Your task to perform on an android device: turn on wifi Image 0: 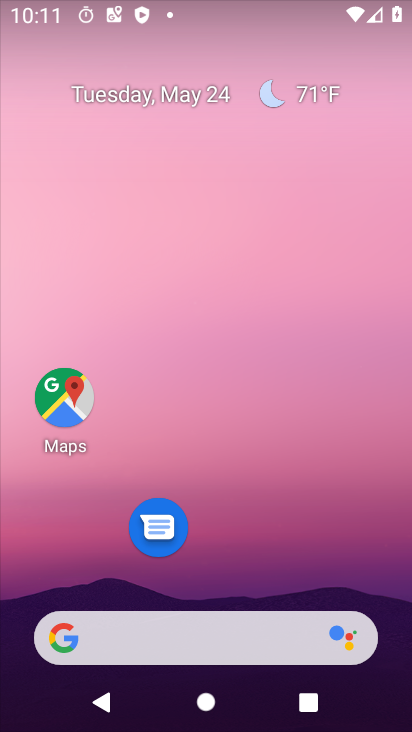
Step 0: drag from (270, 550) to (329, 37)
Your task to perform on an android device: turn on wifi Image 1: 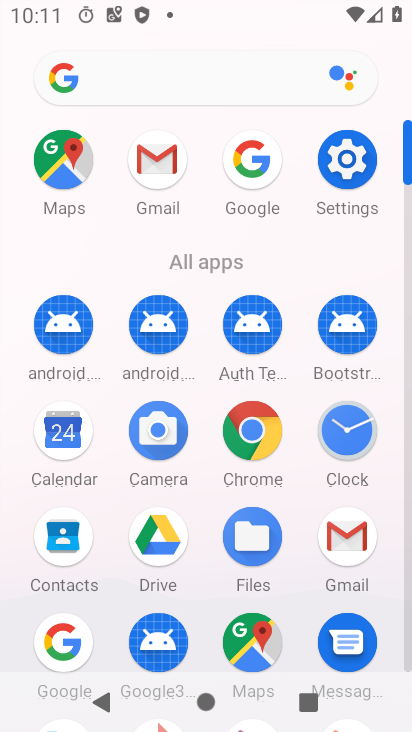
Step 1: click (344, 155)
Your task to perform on an android device: turn on wifi Image 2: 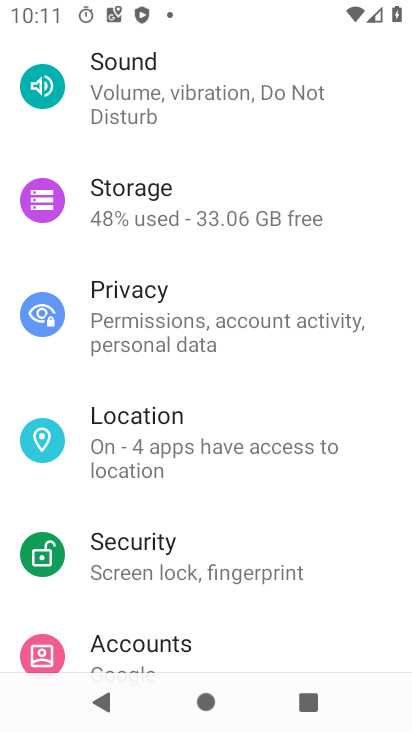
Step 2: drag from (227, 122) to (268, 622)
Your task to perform on an android device: turn on wifi Image 3: 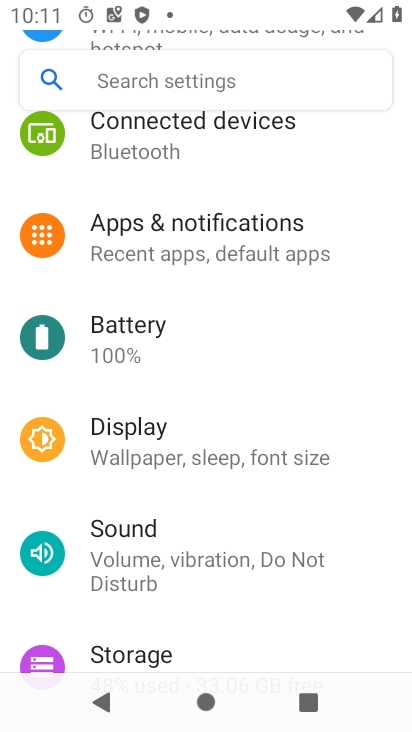
Step 3: drag from (154, 174) to (223, 632)
Your task to perform on an android device: turn on wifi Image 4: 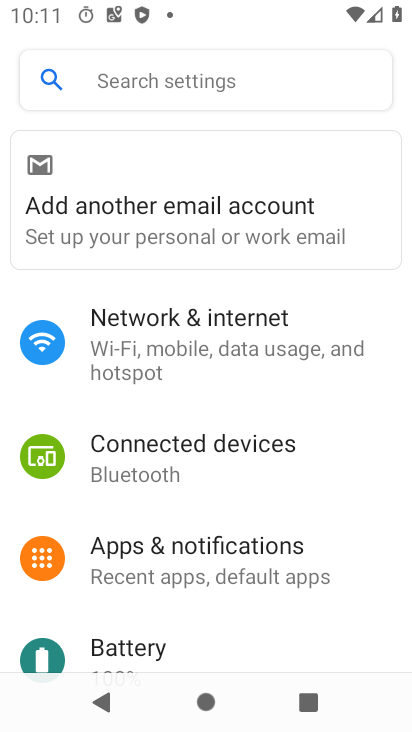
Step 4: click (217, 335)
Your task to perform on an android device: turn on wifi Image 5: 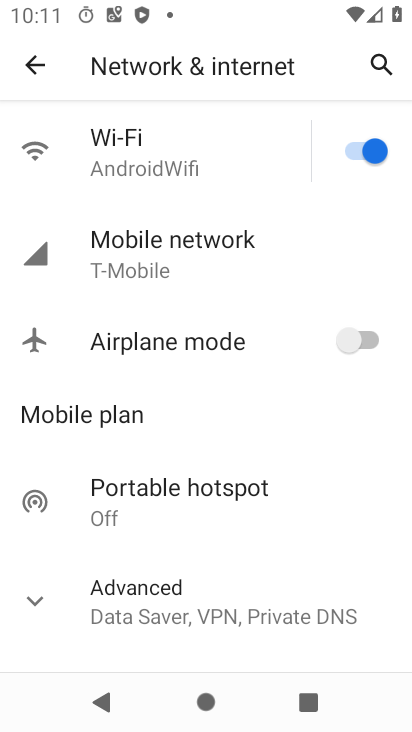
Step 5: task complete